Your task to perform on an android device: turn on javascript in the chrome app Image 0: 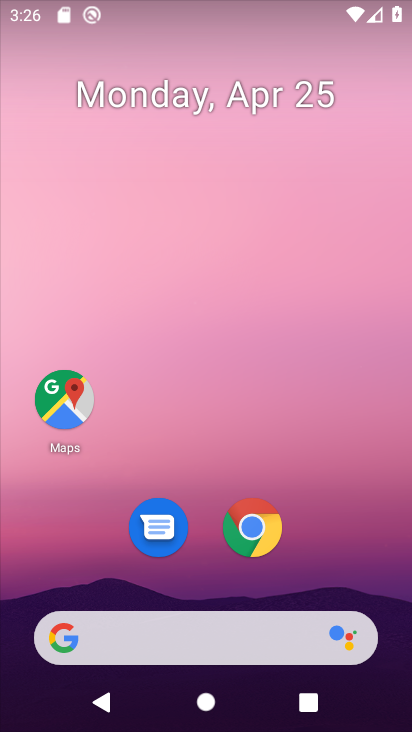
Step 0: click (252, 525)
Your task to perform on an android device: turn on javascript in the chrome app Image 1: 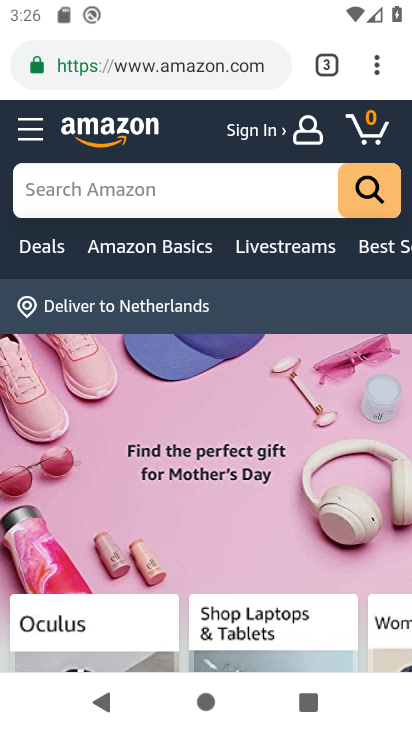
Step 1: click (372, 67)
Your task to perform on an android device: turn on javascript in the chrome app Image 2: 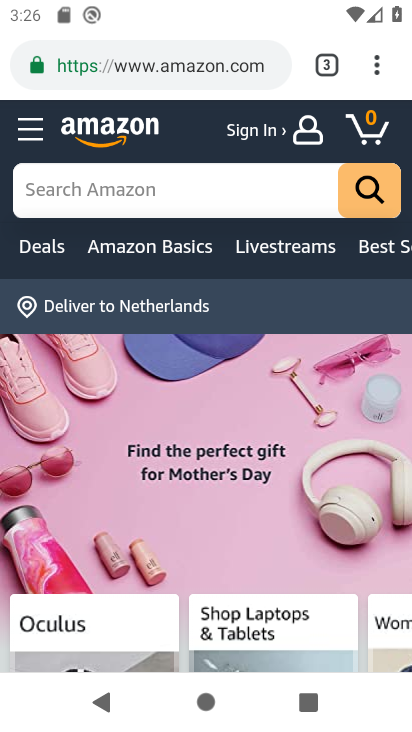
Step 2: click (377, 66)
Your task to perform on an android device: turn on javascript in the chrome app Image 3: 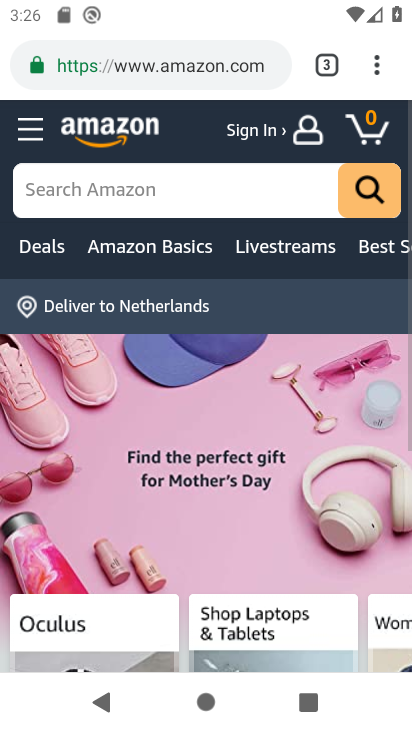
Step 3: click (377, 66)
Your task to perform on an android device: turn on javascript in the chrome app Image 4: 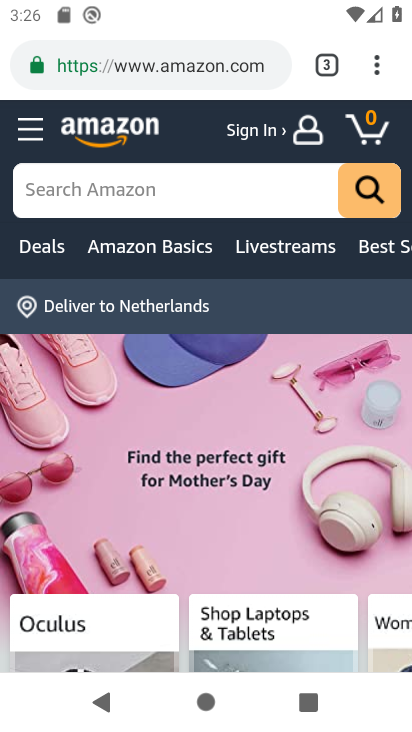
Step 4: click (377, 67)
Your task to perform on an android device: turn on javascript in the chrome app Image 5: 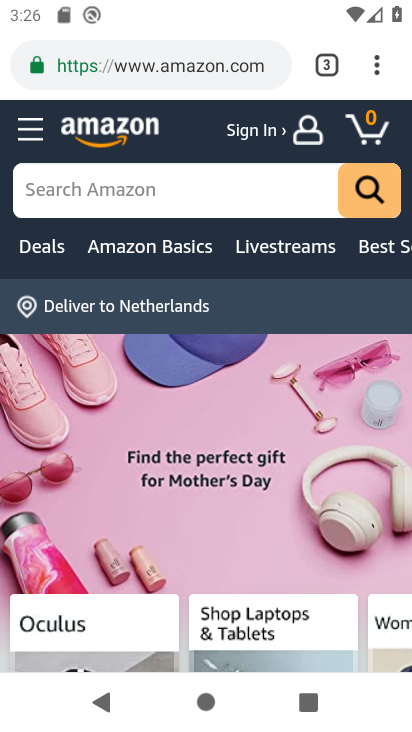
Step 5: click (377, 67)
Your task to perform on an android device: turn on javascript in the chrome app Image 6: 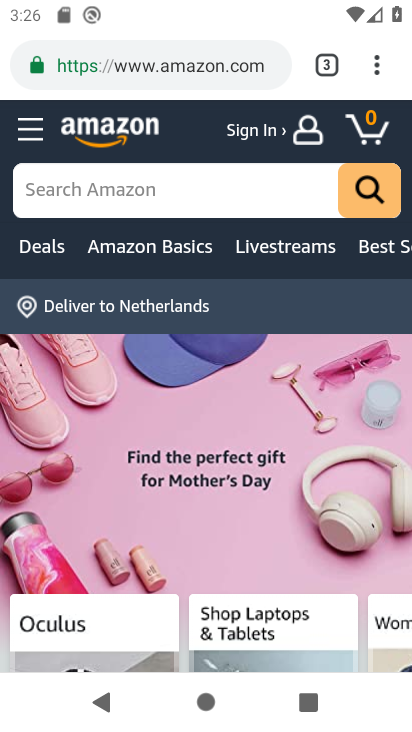
Step 6: click (377, 67)
Your task to perform on an android device: turn on javascript in the chrome app Image 7: 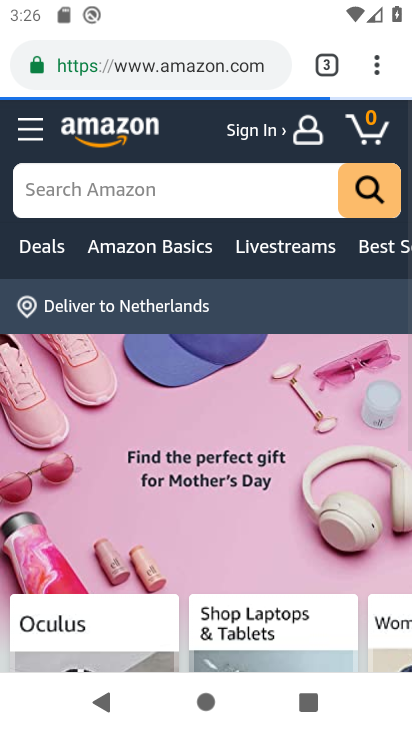
Step 7: click (377, 67)
Your task to perform on an android device: turn on javascript in the chrome app Image 8: 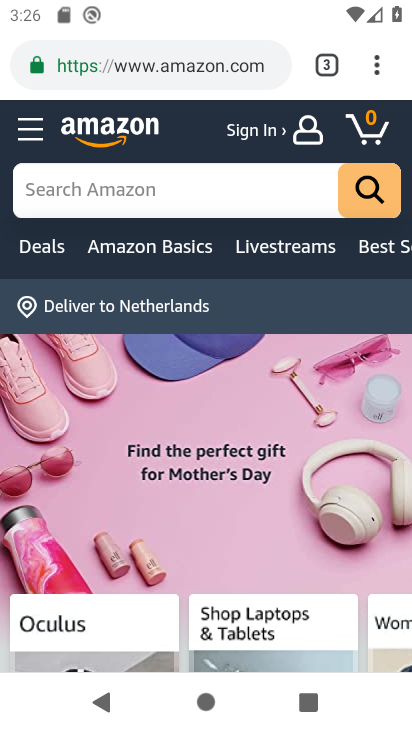
Step 8: click (377, 67)
Your task to perform on an android device: turn on javascript in the chrome app Image 9: 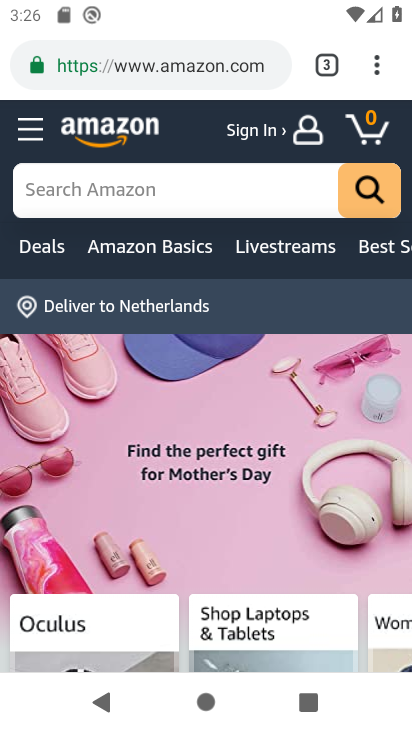
Step 9: click (377, 67)
Your task to perform on an android device: turn on javascript in the chrome app Image 10: 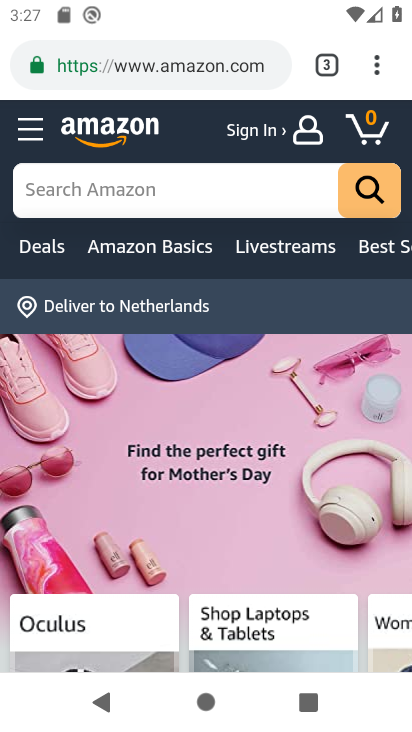
Step 10: click (376, 67)
Your task to perform on an android device: turn on javascript in the chrome app Image 11: 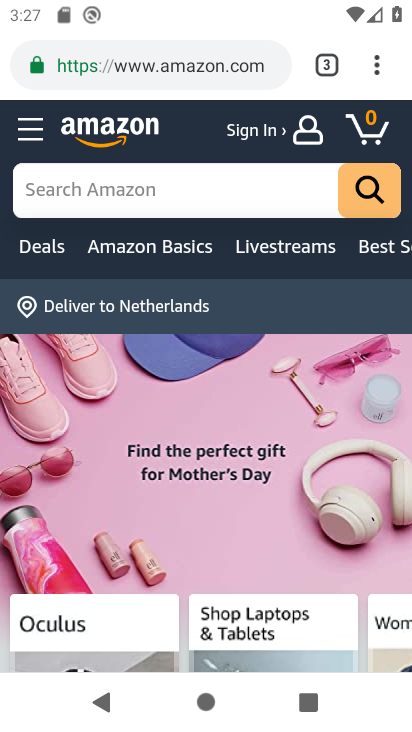
Step 11: task complete